Your task to perform on an android device: Show the shopping cart on walmart. Add jbl charge 4 to the cart on walmart Image 0: 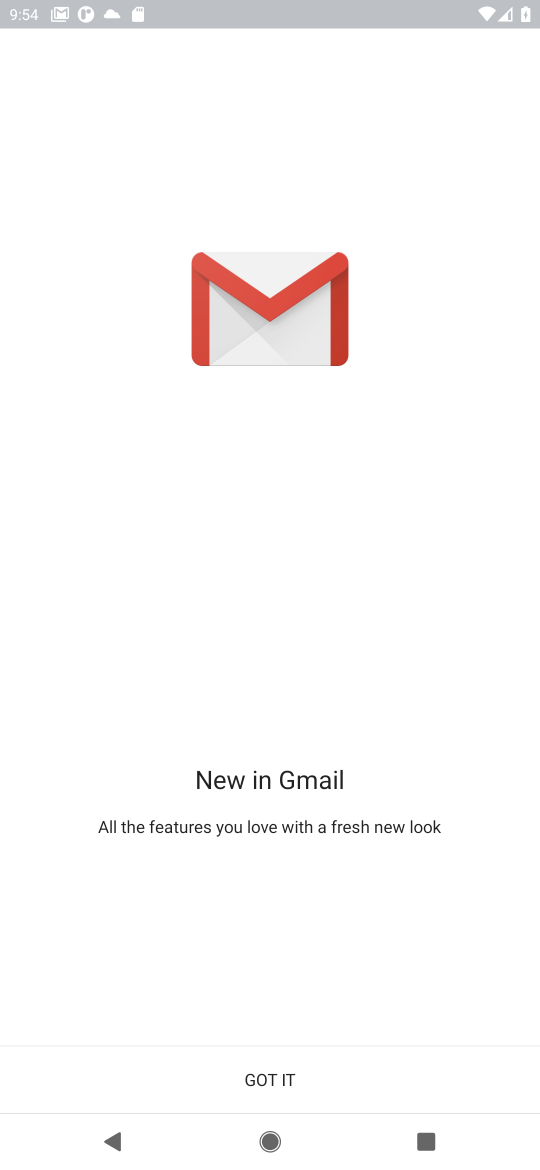
Step 0: press home button
Your task to perform on an android device: Show the shopping cart on walmart. Add jbl charge 4 to the cart on walmart Image 1: 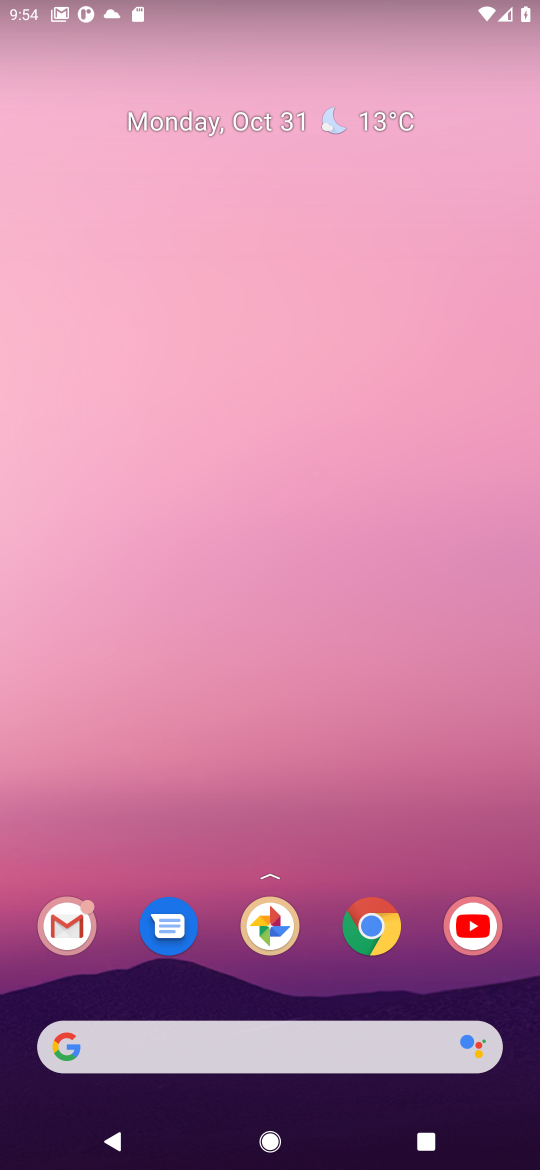
Step 1: click (378, 927)
Your task to perform on an android device: Show the shopping cart on walmart. Add jbl charge 4 to the cart on walmart Image 2: 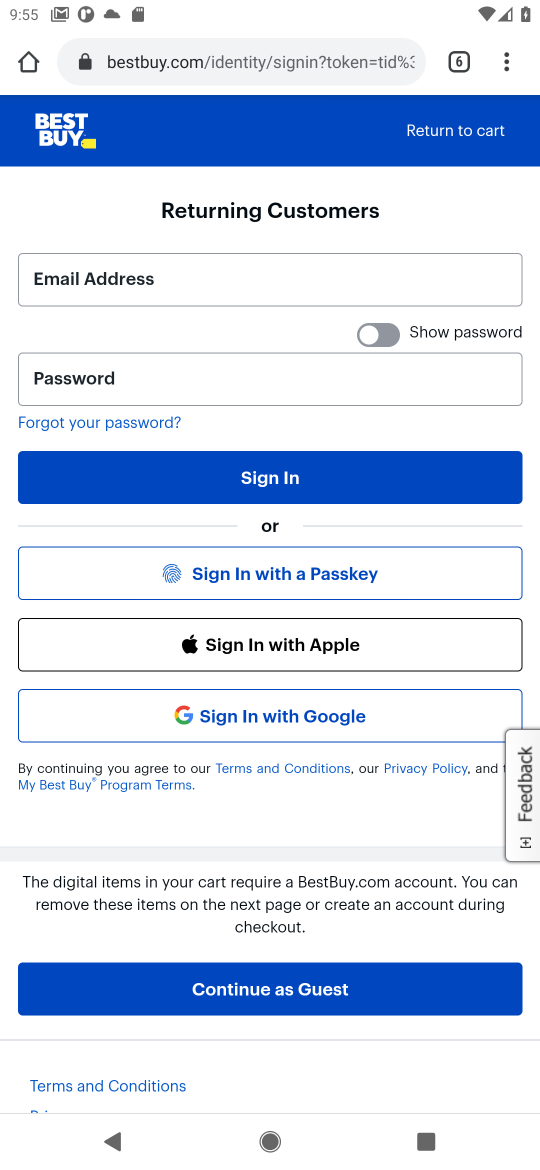
Step 2: click (454, 57)
Your task to perform on an android device: Show the shopping cart on walmart. Add jbl charge 4 to the cart on walmart Image 3: 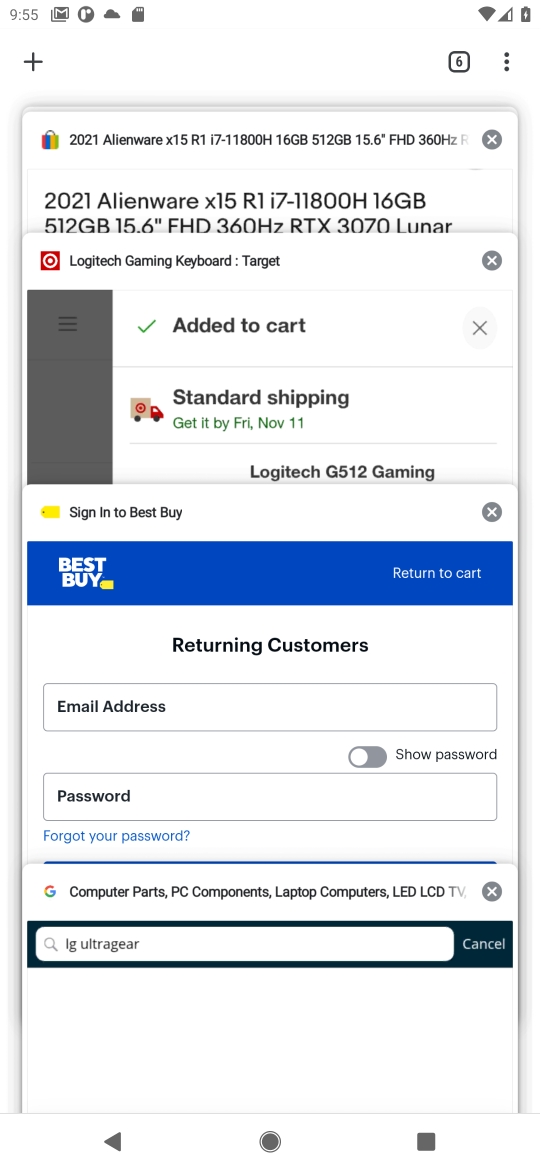
Step 3: drag from (288, 154) to (233, 513)
Your task to perform on an android device: Show the shopping cart on walmart. Add jbl charge 4 to the cart on walmart Image 4: 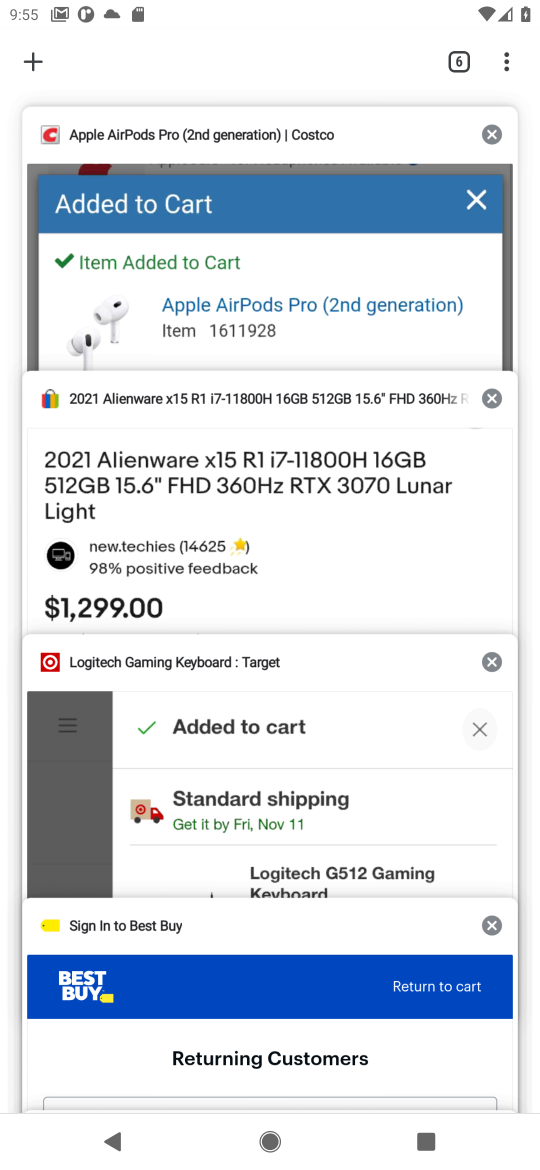
Step 4: click (26, 55)
Your task to perform on an android device: Show the shopping cart on walmart. Add jbl charge 4 to the cart on walmart Image 5: 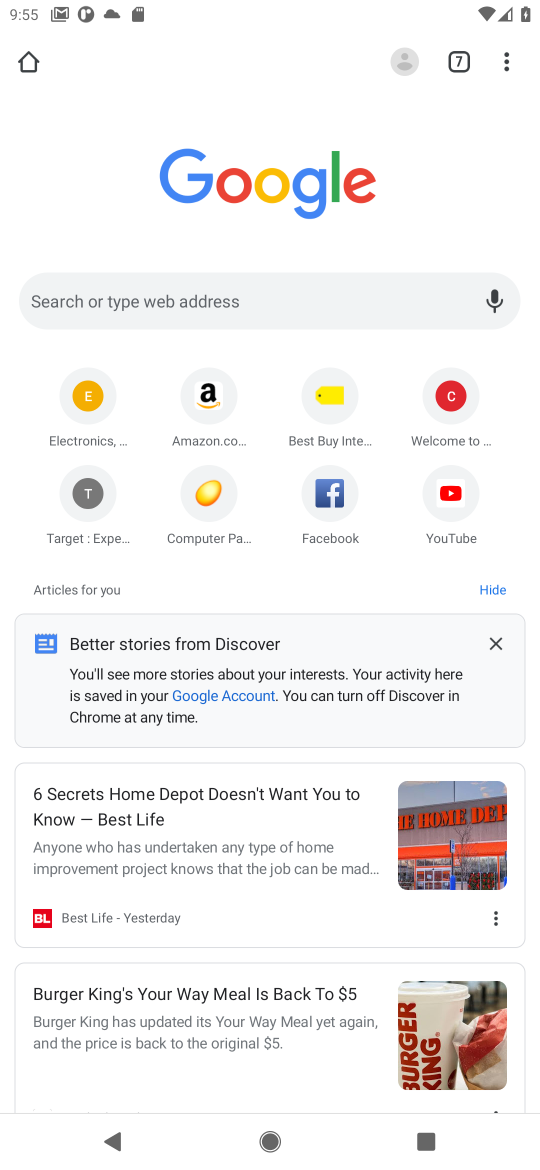
Step 5: click (329, 294)
Your task to perform on an android device: Show the shopping cart on walmart. Add jbl charge 4 to the cart on walmart Image 6: 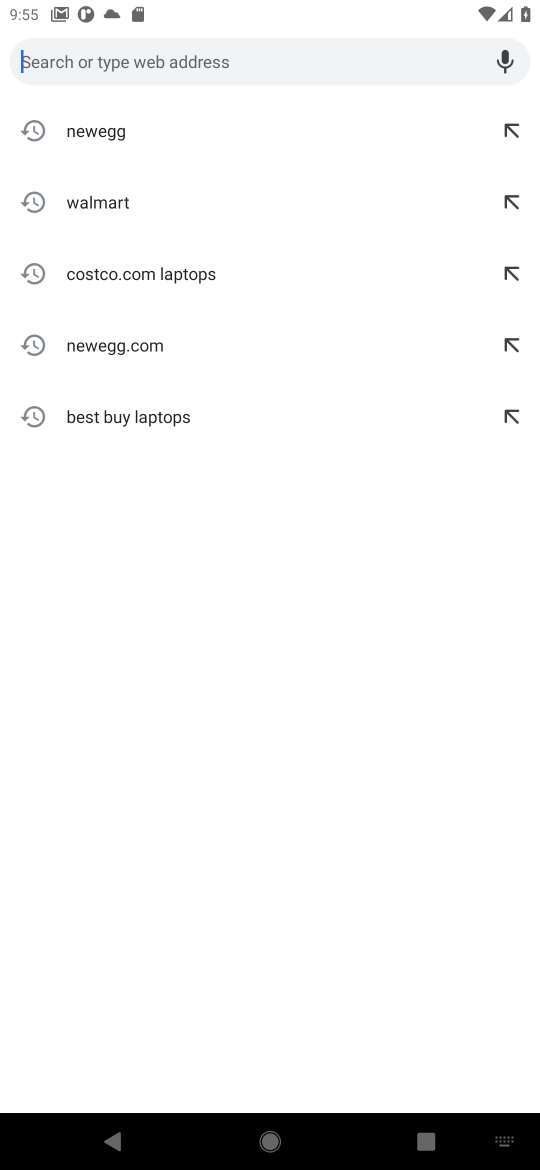
Step 6: type "wal;m,aer"
Your task to perform on an android device: Show the shopping cart on walmart. Add jbl charge 4 to the cart on walmart Image 7: 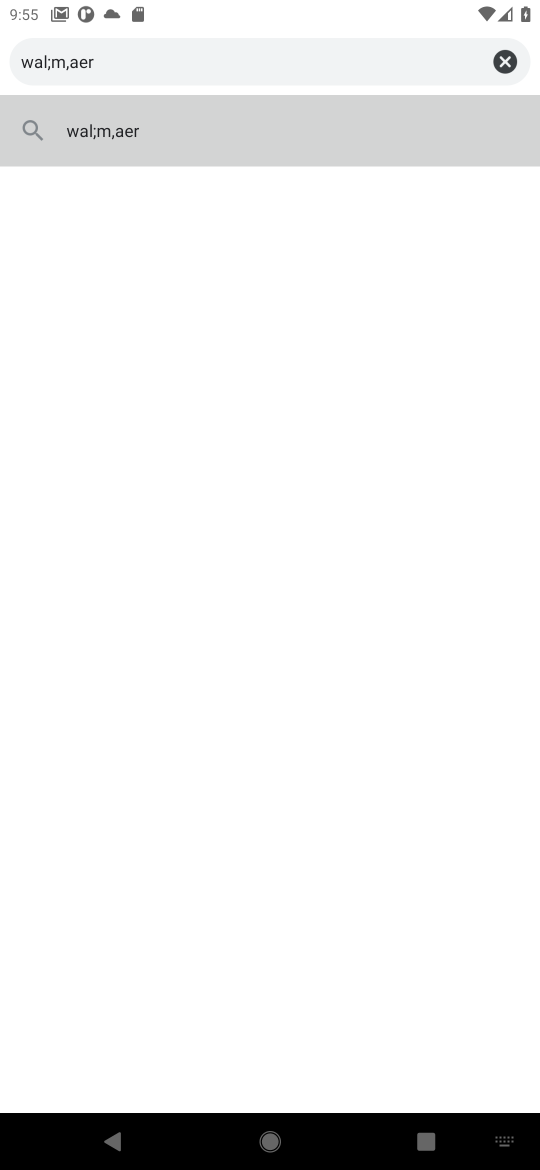
Step 7: click (504, 61)
Your task to perform on an android device: Show the shopping cart on walmart. Add jbl charge 4 to the cart on walmart Image 8: 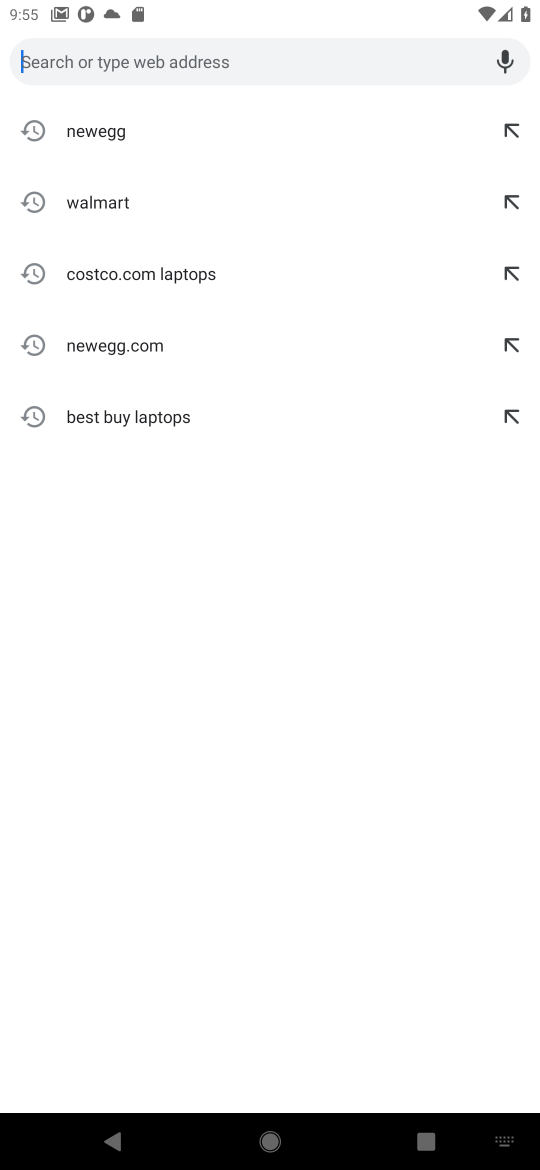
Step 8: click (113, 198)
Your task to perform on an android device: Show the shopping cart on walmart. Add jbl charge 4 to the cart on walmart Image 9: 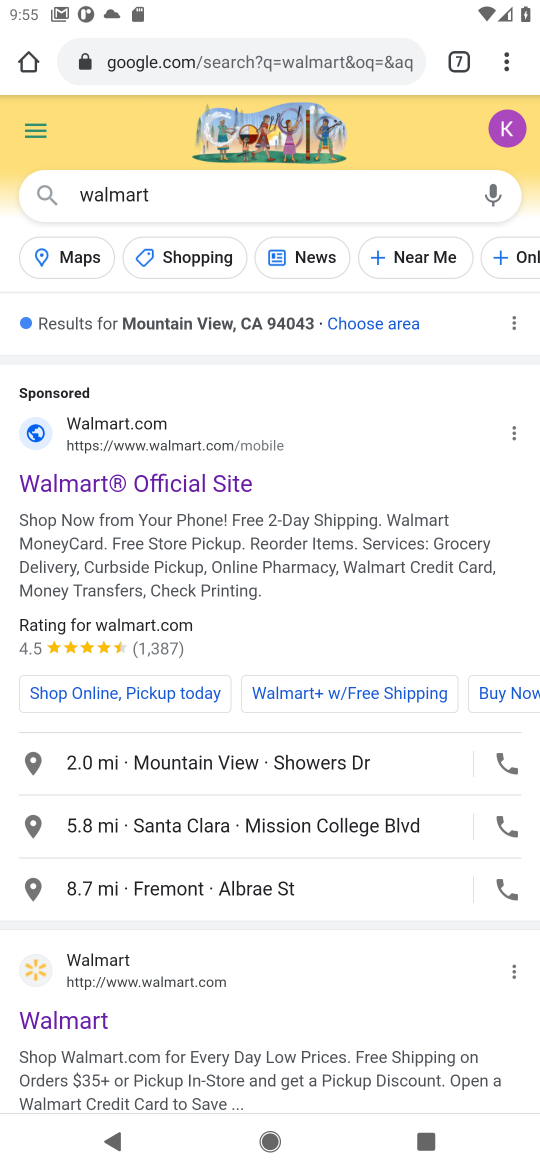
Step 9: click (66, 1015)
Your task to perform on an android device: Show the shopping cart on walmart. Add jbl charge 4 to the cart on walmart Image 10: 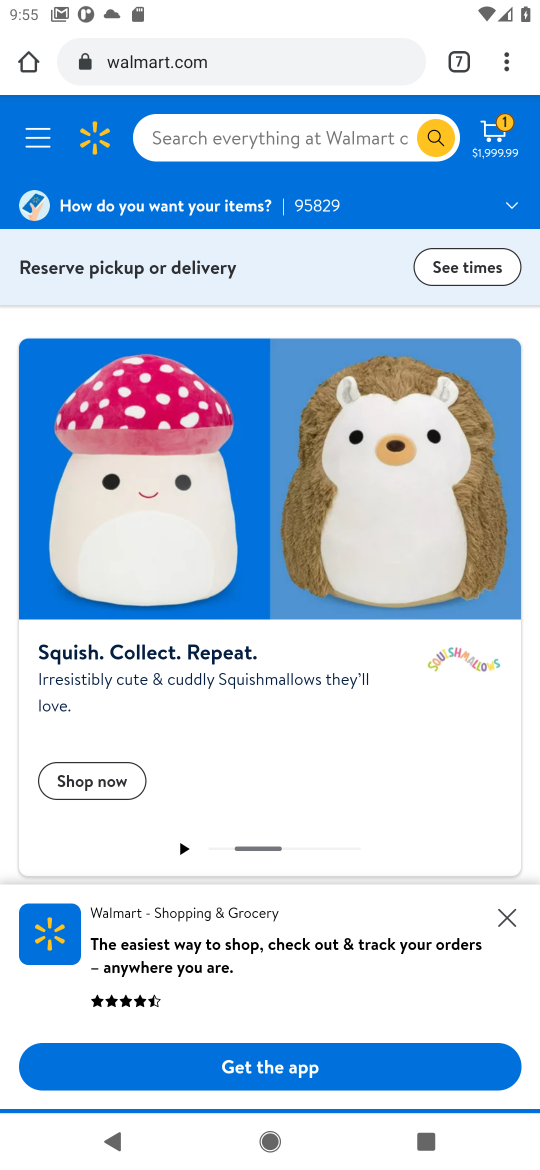
Step 10: click (507, 909)
Your task to perform on an android device: Show the shopping cart on walmart. Add jbl charge 4 to the cart on walmart Image 11: 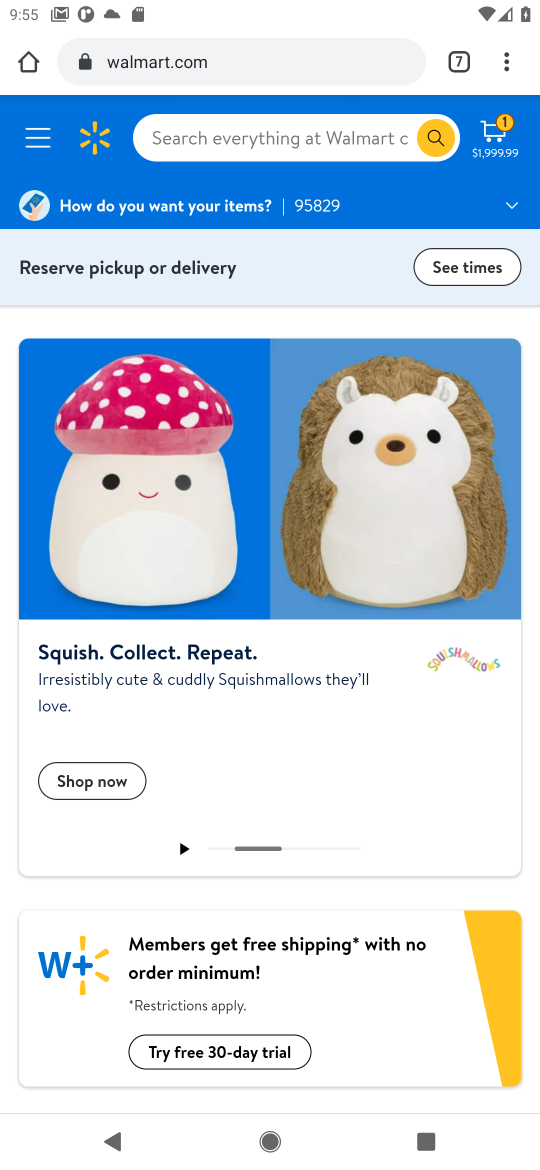
Step 11: click (308, 144)
Your task to perform on an android device: Show the shopping cart on walmart. Add jbl charge 4 to the cart on walmart Image 12: 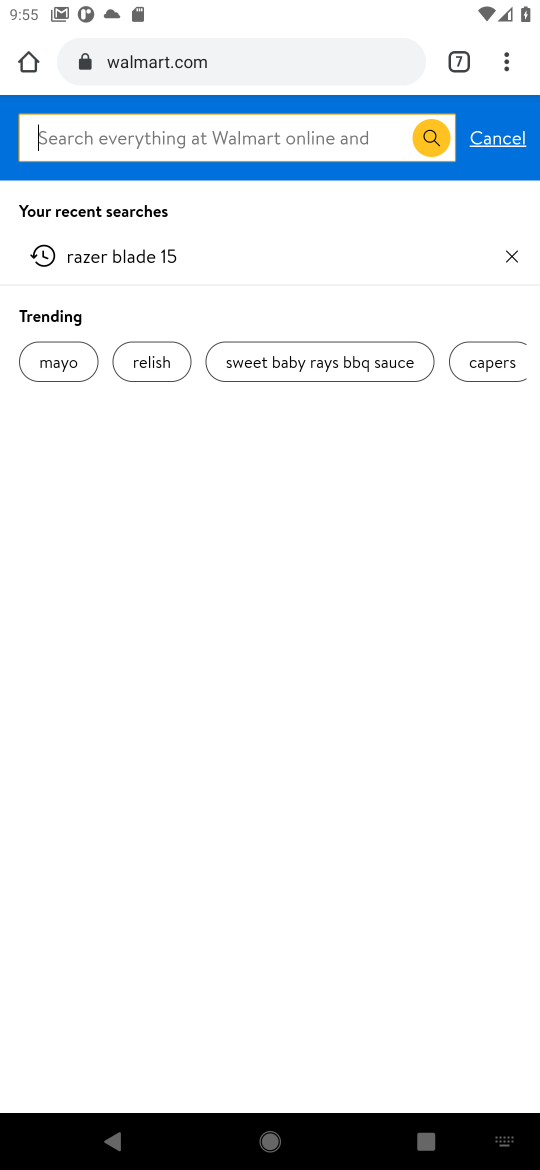
Step 12: type "jbl charge 4"
Your task to perform on an android device: Show the shopping cart on walmart. Add jbl charge 4 to the cart on walmart Image 13: 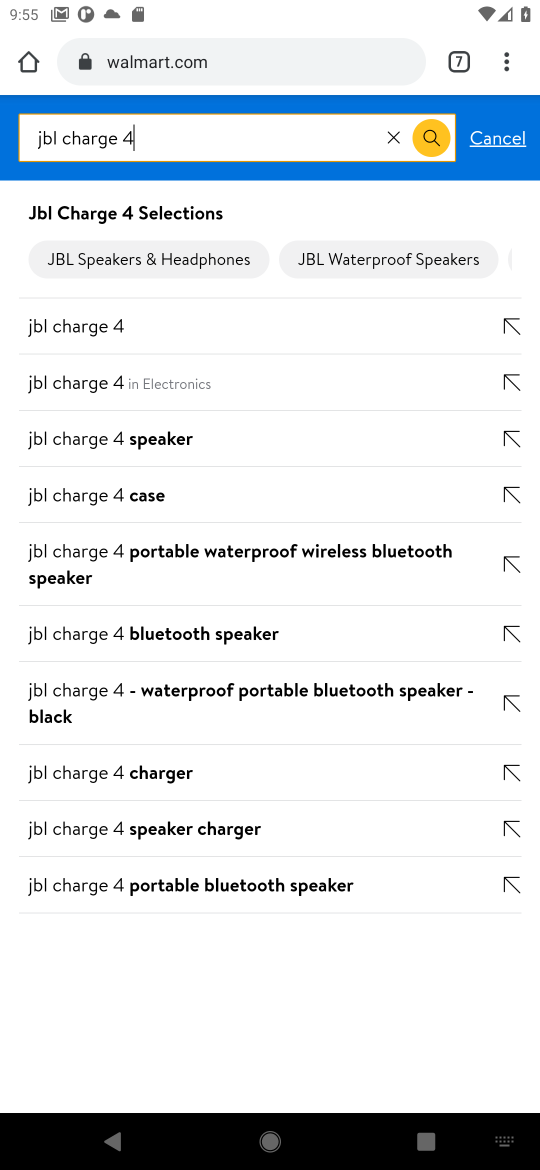
Step 13: click (100, 380)
Your task to perform on an android device: Show the shopping cart on walmart. Add jbl charge 4 to the cart on walmart Image 14: 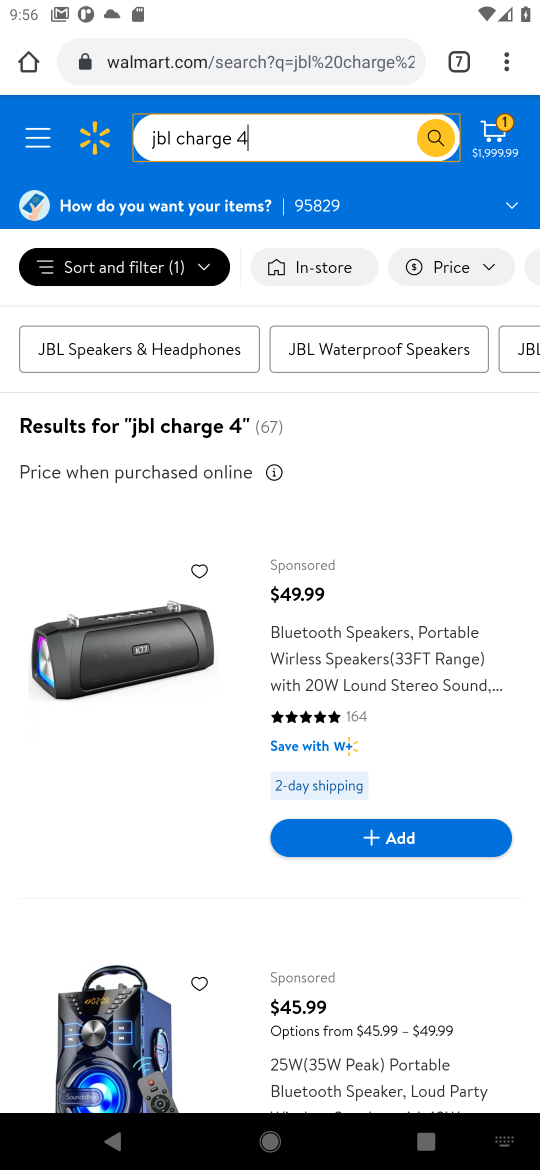
Step 14: click (413, 847)
Your task to perform on an android device: Show the shopping cart on walmart. Add jbl charge 4 to the cart on walmart Image 15: 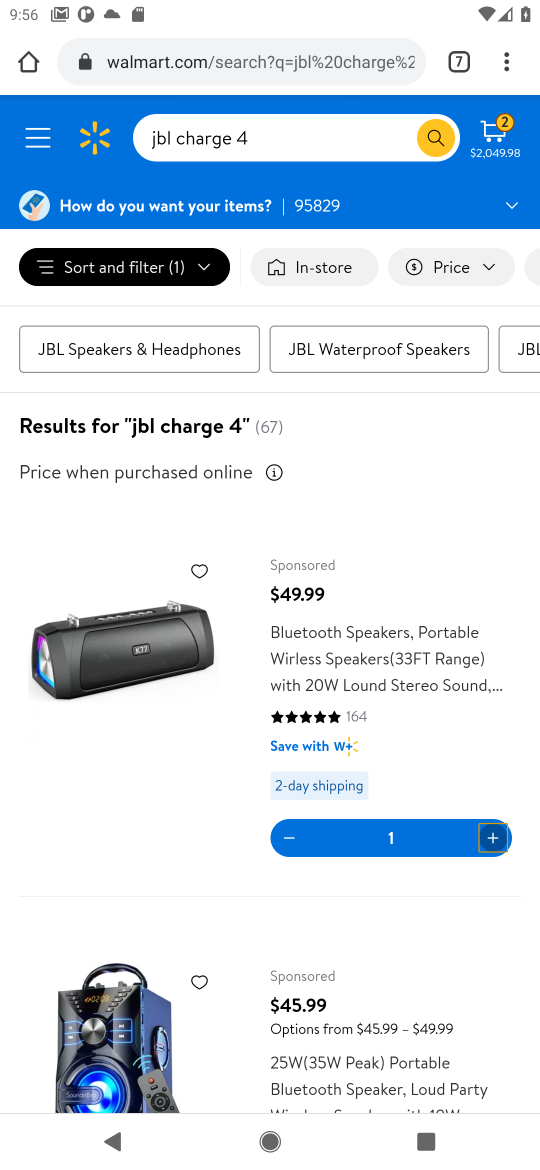
Step 15: task complete